Your task to perform on an android device: stop showing notifications on the lock screen Image 0: 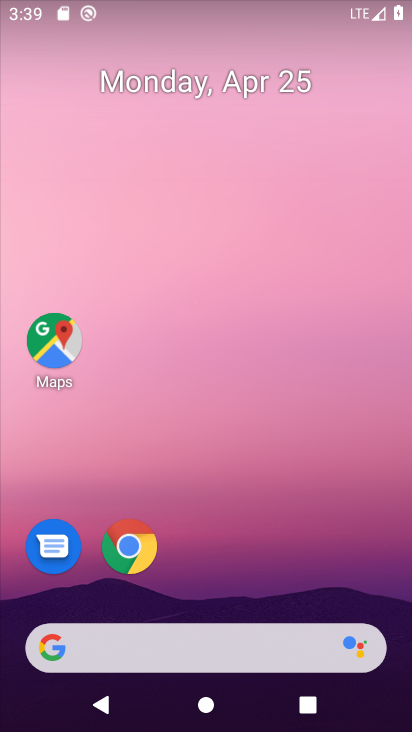
Step 0: drag from (270, 349) to (319, 25)
Your task to perform on an android device: stop showing notifications on the lock screen Image 1: 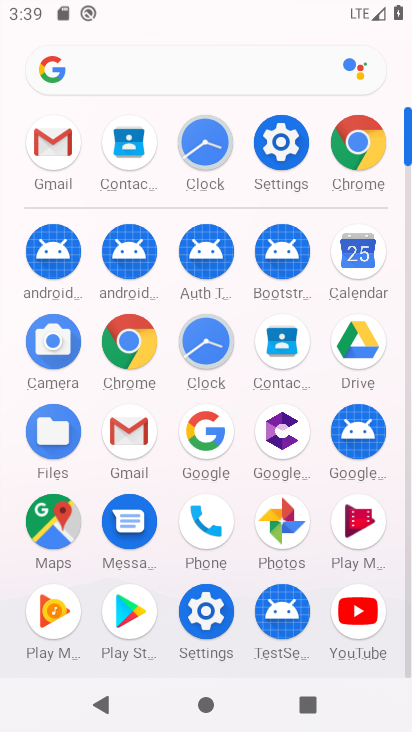
Step 1: click (278, 148)
Your task to perform on an android device: stop showing notifications on the lock screen Image 2: 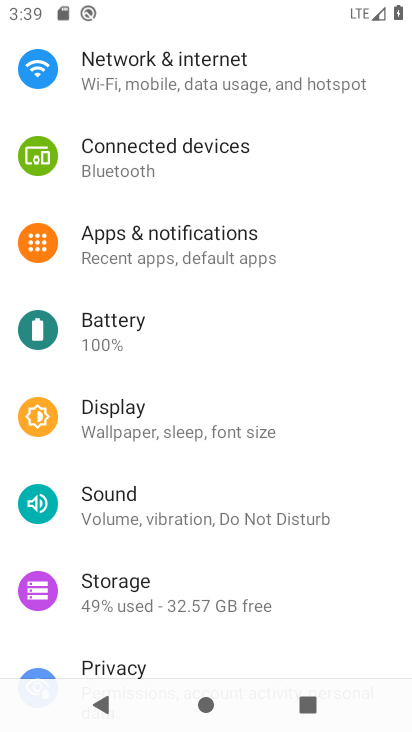
Step 2: click (171, 260)
Your task to perform on an android device: stop showing notifications on the lock screen Image 3: 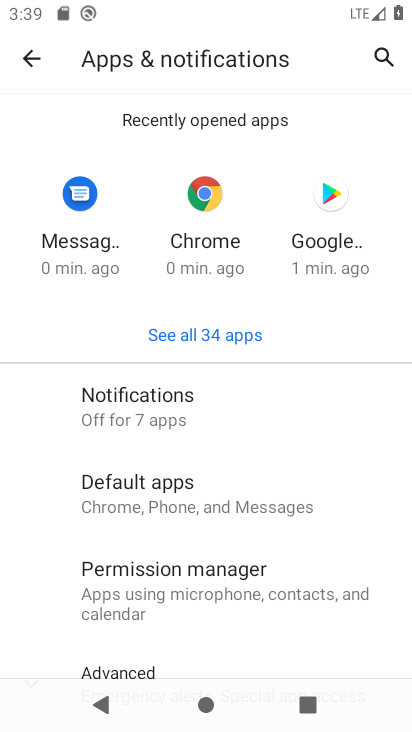
Step 3: click (257, 397)
Your task to perform on an android device: stop showing notifications on the lock screen Image 4: 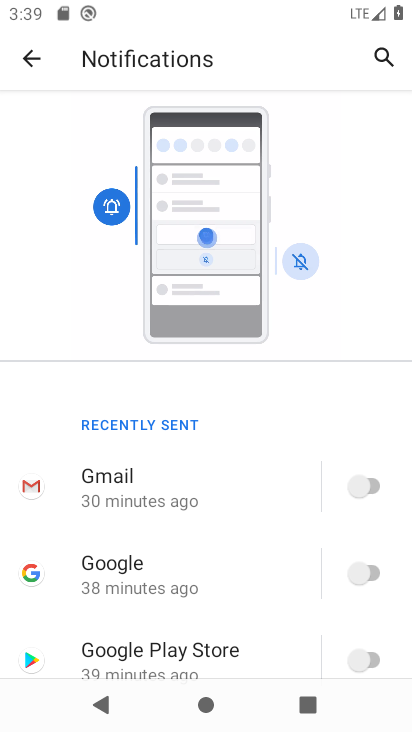
Step 4: drag from (195, 564) to (293, 211)
Your task to perform on an android device: stop showing notifications on the lock screen Image 5: 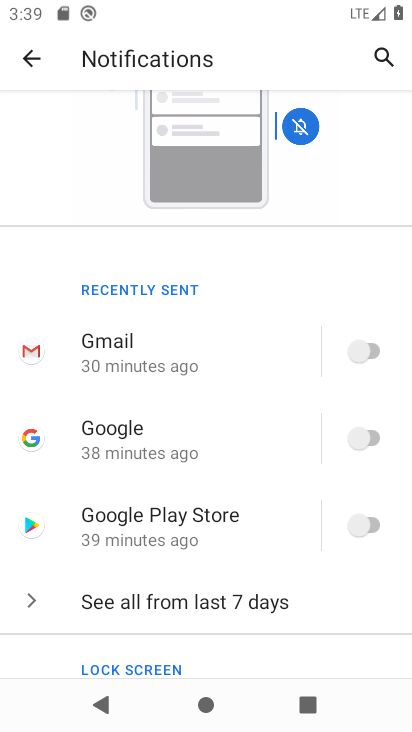
Step 5: drag from (200, 544) to (221, 193)
Your task to perform on an android device: stop showing notifications on the lock screen Image 6: 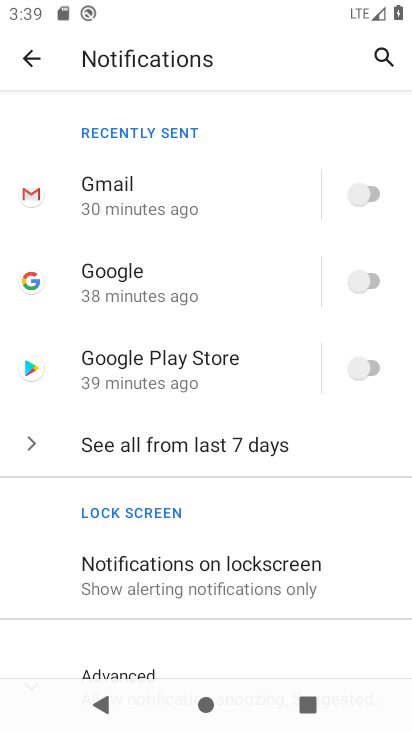
Step 6: click (172, 566)
Your task to perform on an android device: stop showing notifications on the lock screen Image 7: 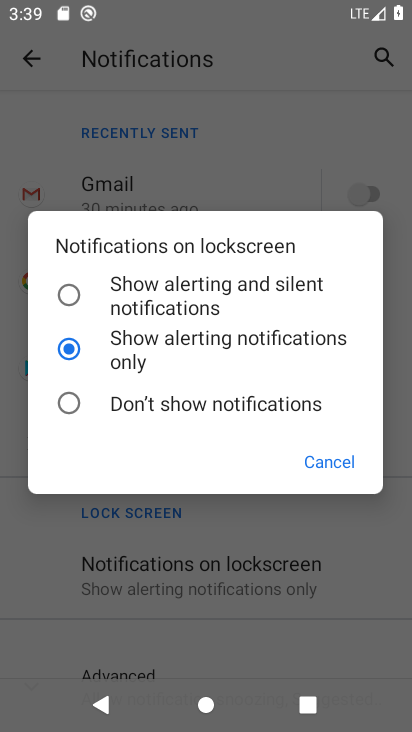
Step 7: click (235, 399)
Your task to perform on an android device: stop showing notifications on the lock screen Image 8: 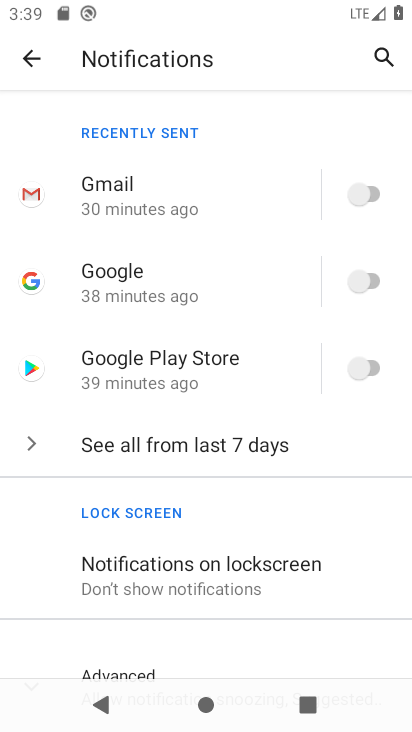
Step 8: task complete